Your task to perform on an android device: search for starred emails in the gmail app Image 0: 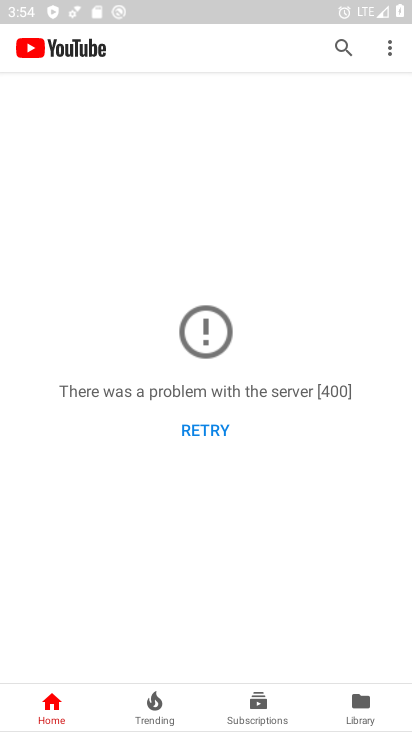
Step 0: press back button
Your task to perform on an android device: search for starred emails in the gmail app Image 1: 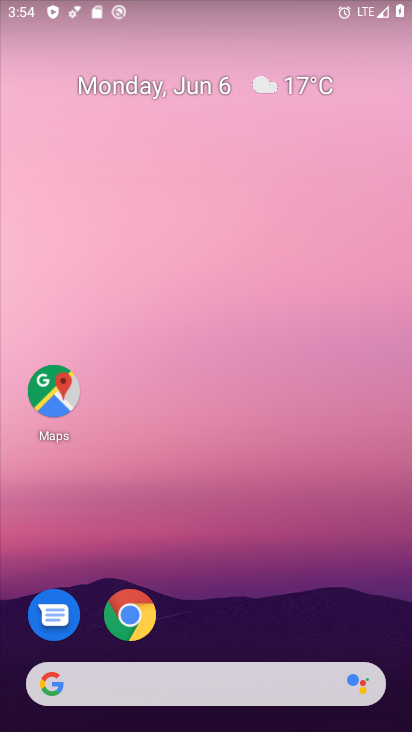
Step 1: drag from (297, 602) to (183, 16)
Your task to perform on an android device: search for starred emails in the gmail app Image 2: 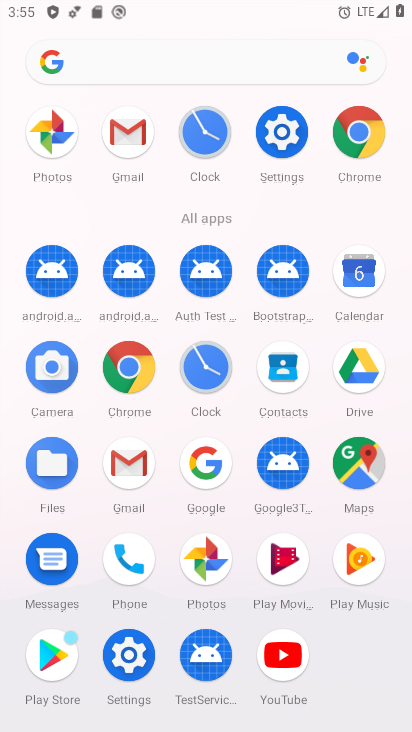
Step 2: click (131, 458)
Your task to perform on an android device: search for starred emails in the gmail app Image 3: 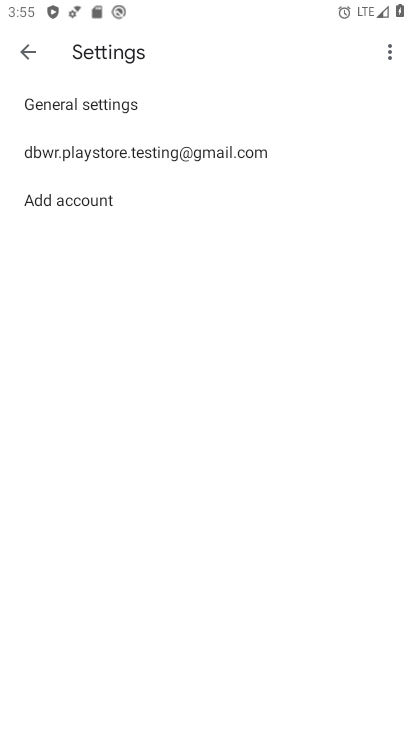
Step 3: click (33, 53)
Your task to perform on an android device: search for starred emails in the gmail app Image 4: 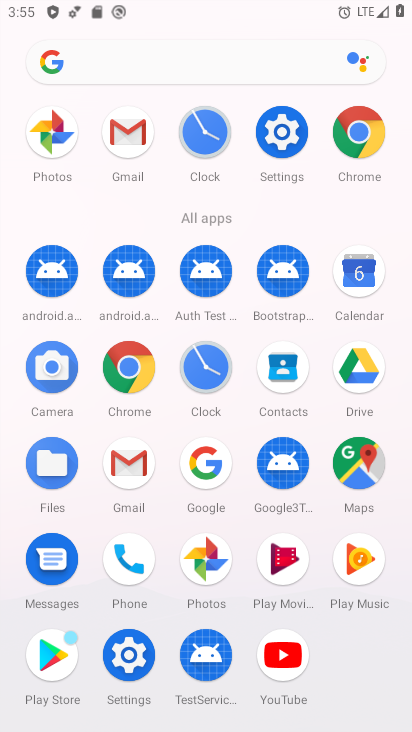
Step 4: click (126, 455)
Your task to perform on an android device: search for starred emails in the gmail app Image 5: 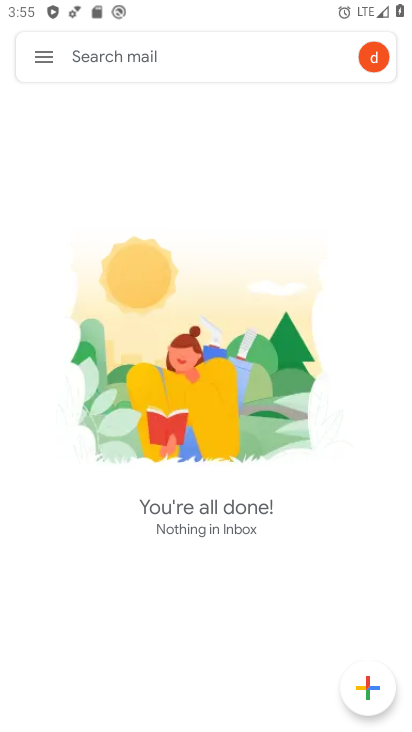
Step 5: click (44, 56)
Your task to perform on an android device: search for starred emails in the gmail app Image 6: 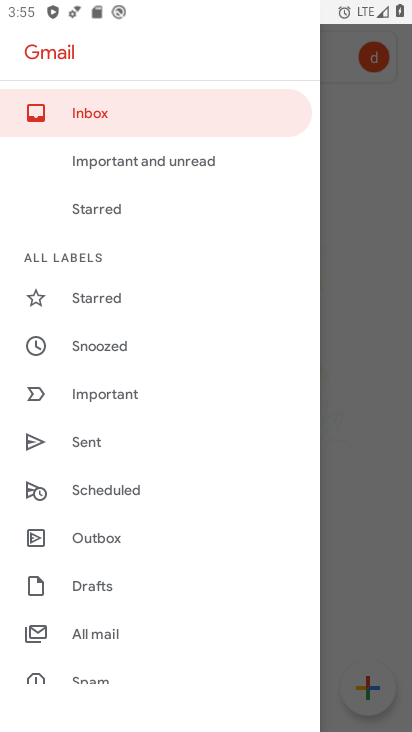
Step 6: click (88, 289)
Your task to perform on an android device: search for starred emails in the gmail app Image 7: 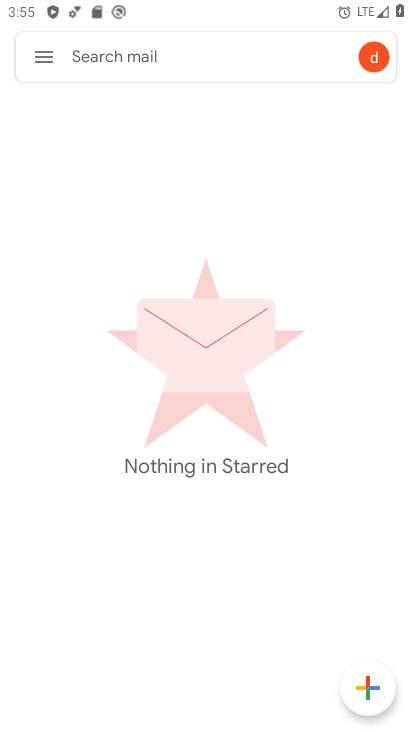
Step 7: task complete